Your task to perform on an android device: turn on wifi Image 0: 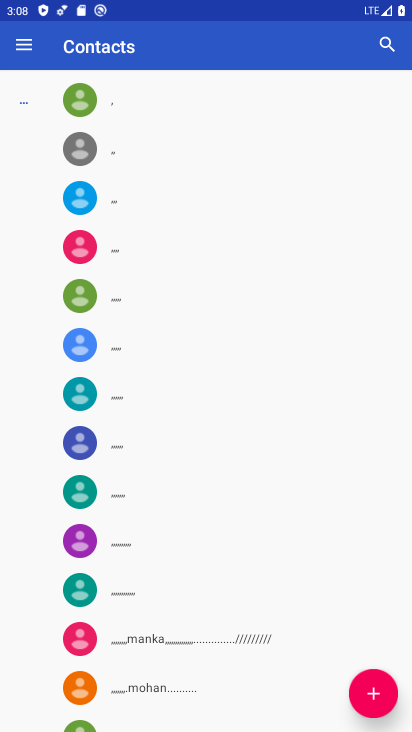
Step 0: press home button
Your task to perform on an android device: turn on wifi Image 1: 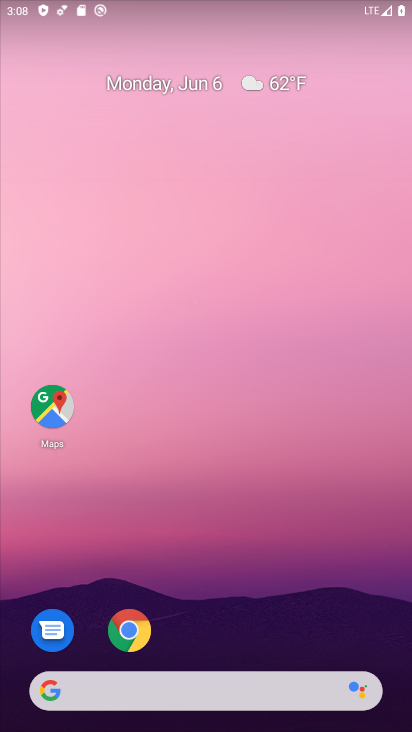
Step 1: click (226, 638)
Your task to perform on an android device: turn on wifi Image 2: 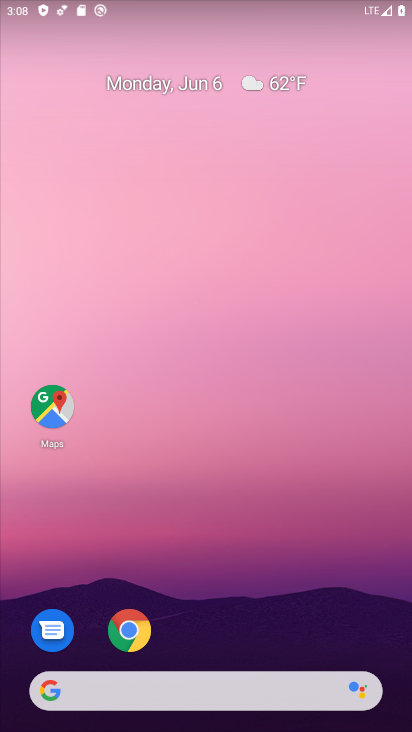
Step 2: drag from (352, 8) to (223, 728)
Your task to perform on an android device: turn on wifi Image 3: 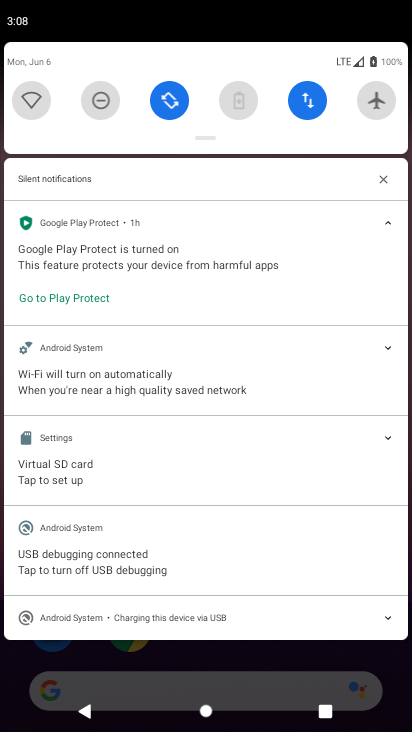
Step 3: click (16, 97)
Your task to perform on an android device: turn on wifi Image 4: 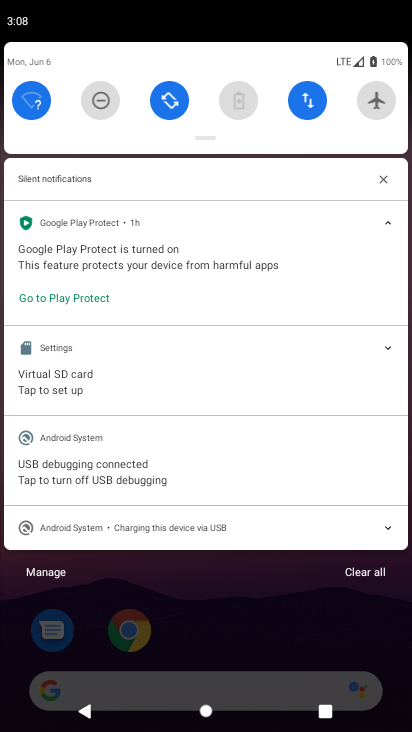
Step 4: task complete